Your task to perform on an android device: Open calendar and show me the third week of next month Image 0: 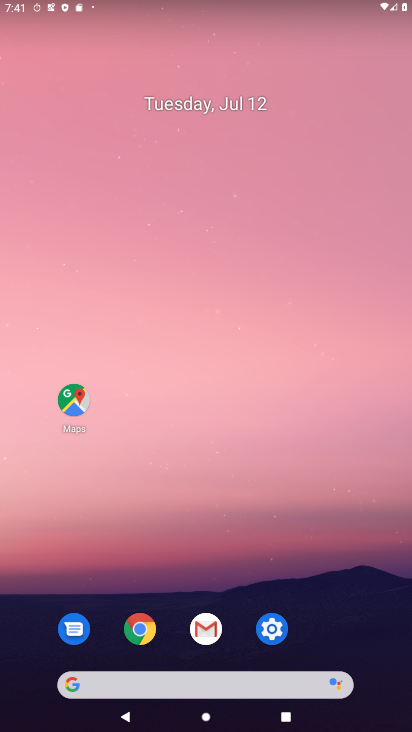
Step 0: drag from (272, 702) to (393, 197)
Your task to perform on an android device: Open calendar and show me the third week of next month Image 1: 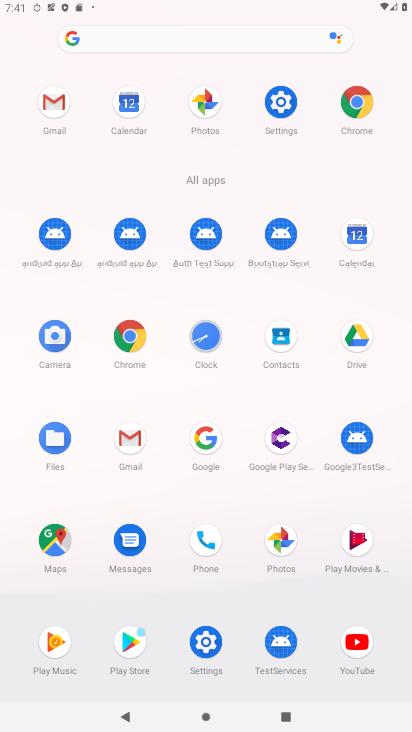
Step 1: click (353, 224)
Your task to perform on an android device: Open calendar and show me the third week of next month Image 2: 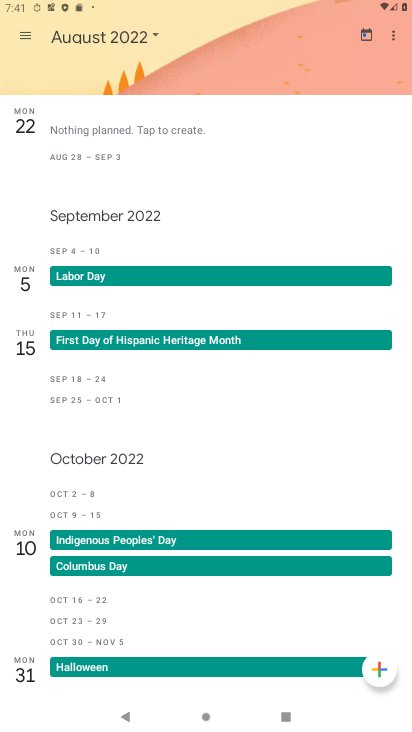
Step 2: click (20, 36)
Your task to perform on an android device: Open calendar and show me the third week of next month Image 3: 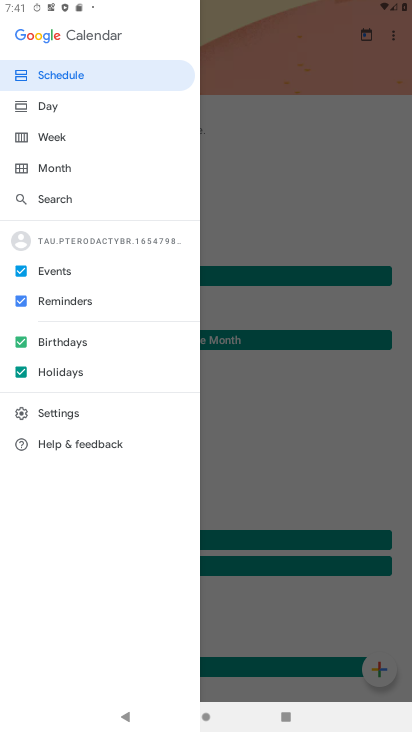
Step 3: click (57, 172)
Your task to perform on an android device: Open calendar and show me the third week of next month Image 4: 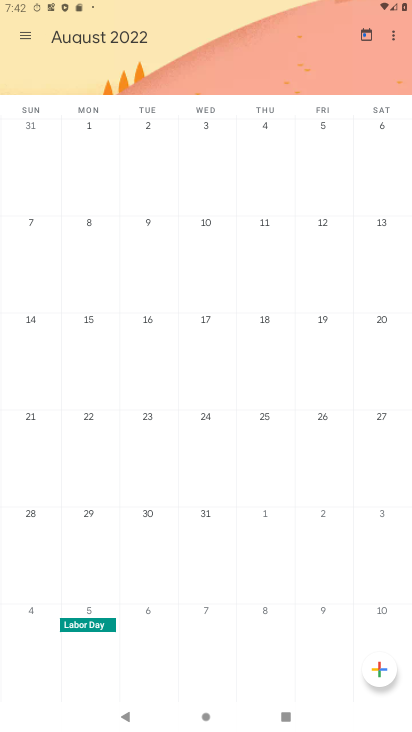
Step 4: task complete